Your task to perform on an android device: Open Youtube and go to the subscriptions tab Image 0: 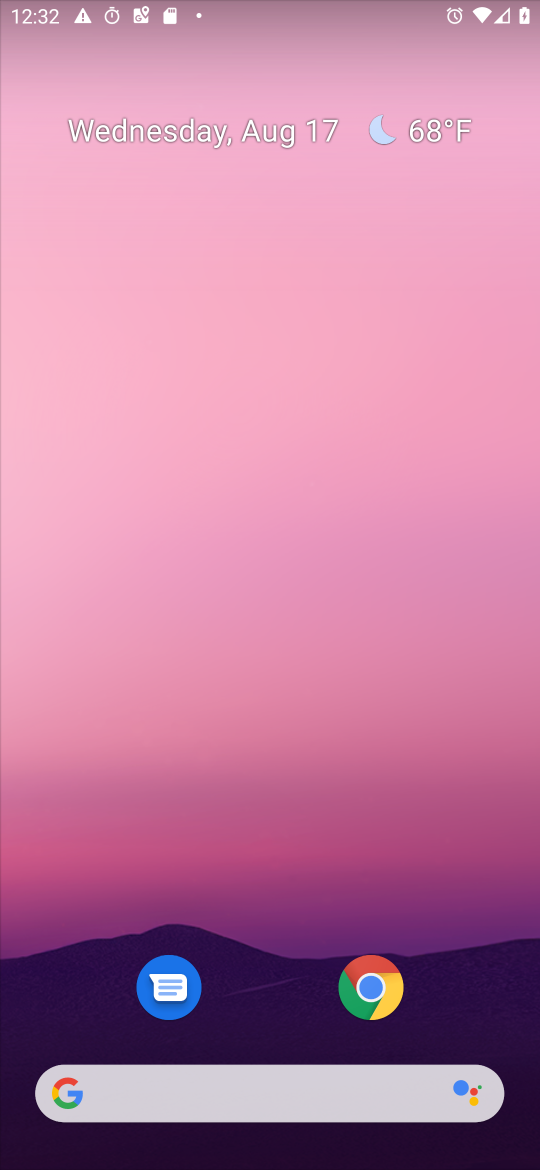
Step 0: drag from (22, 1128) to (201, 675)
Your task to perform on an android device: Open Youtube and go to the subscriptions tab Image 1: 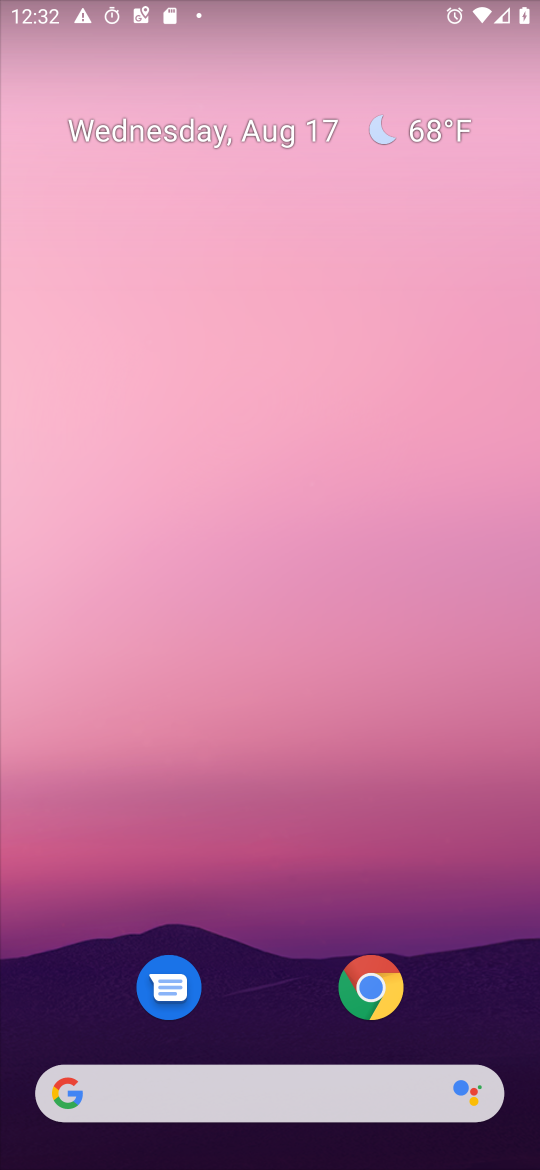
Step 1: drag from (22, 1139) to (285, 446)
Your task to perform on an android device: Open Youtube and go to the subscriptions tab Image 2: 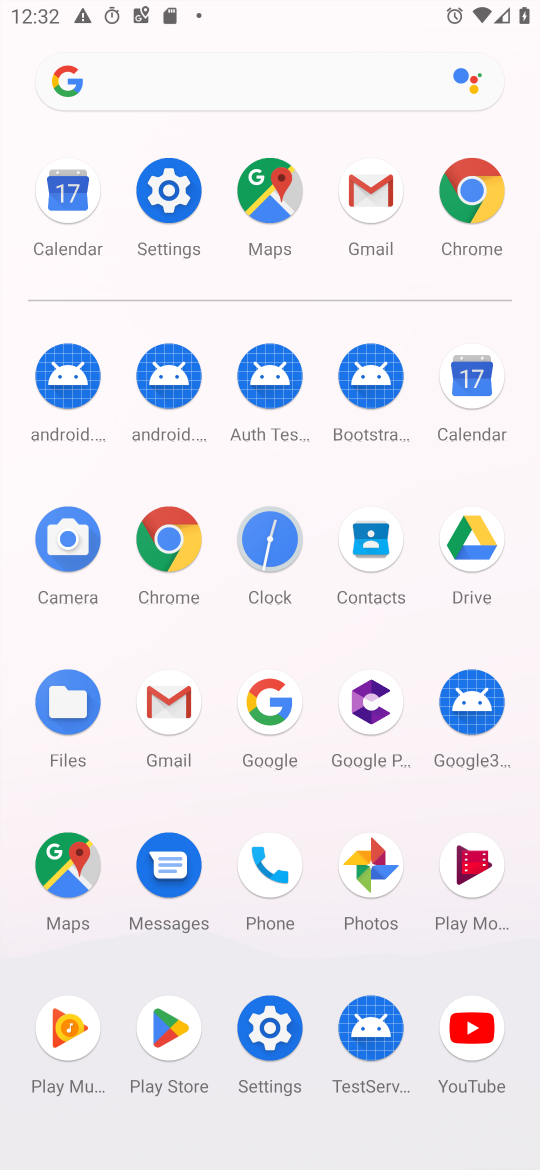
Step 2: click (469, 1024)
Your task to perform on an android device: Open Youtube and go to the subscriptions tab Image 3: 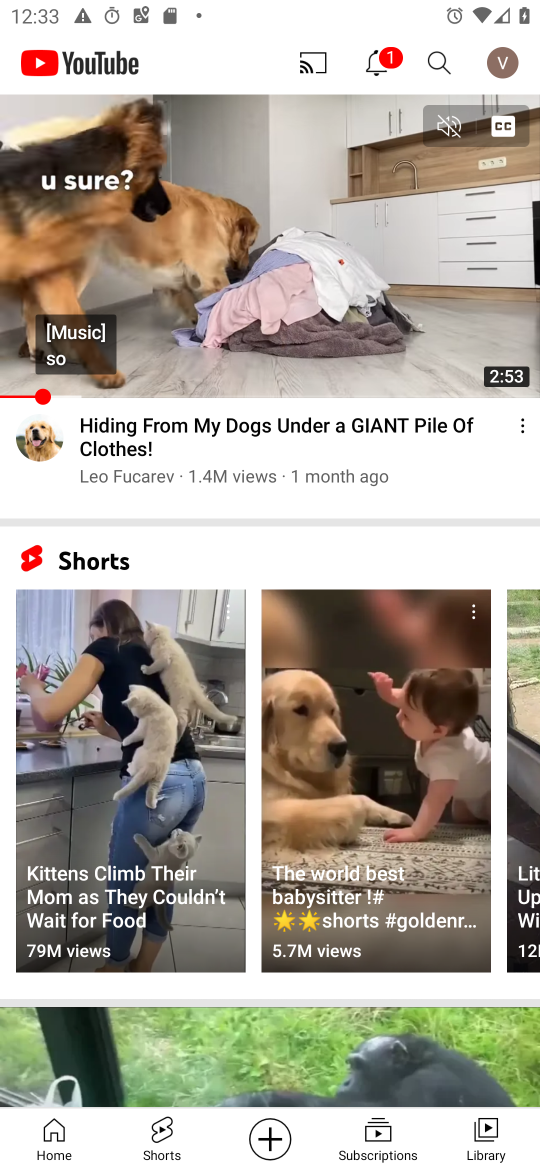
Step 3: click (367, 1132)
Your task to perform on an android device: Open Youtube and go to the subscriptions tab Image 4: 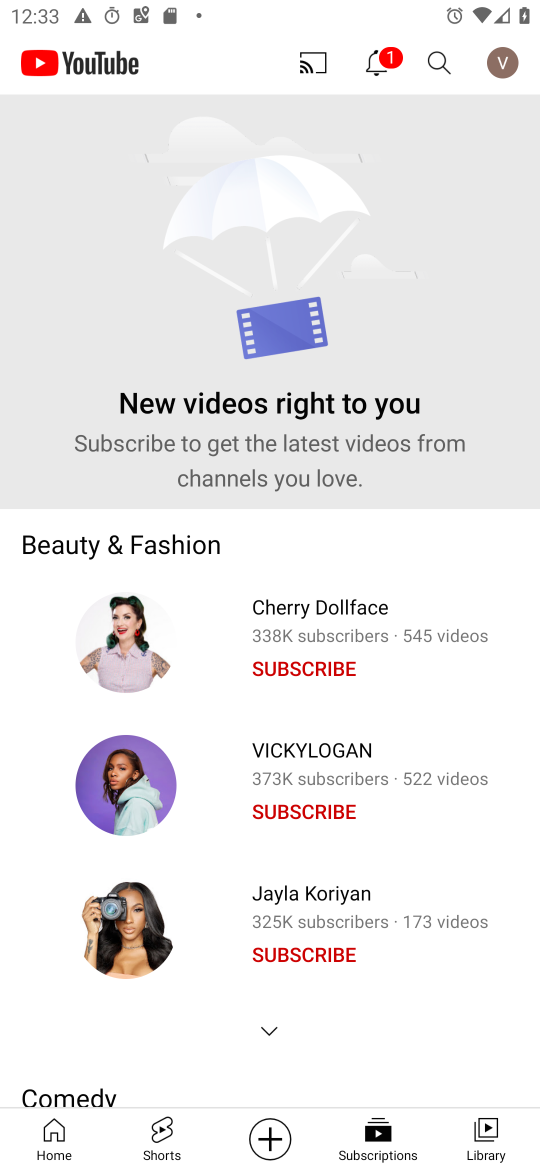
Step 4: task complete